Your task to perform on an android device: Open Youtube and go to "Your channel" Image 0: 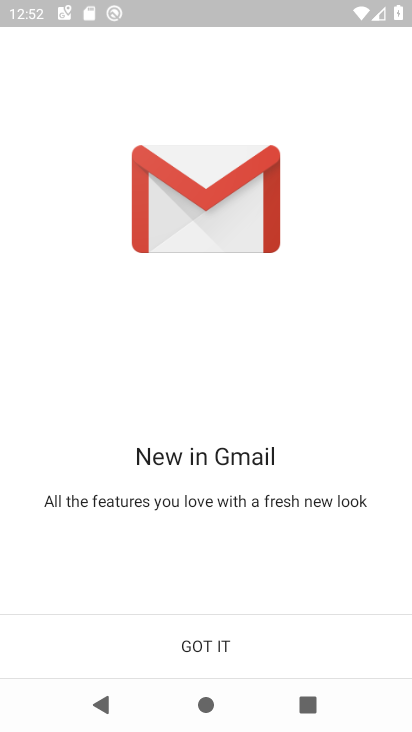
Step 0: click (202, 648)
Your task to perform on an android device: Open Youtube and go to "Your channel" Image 1: 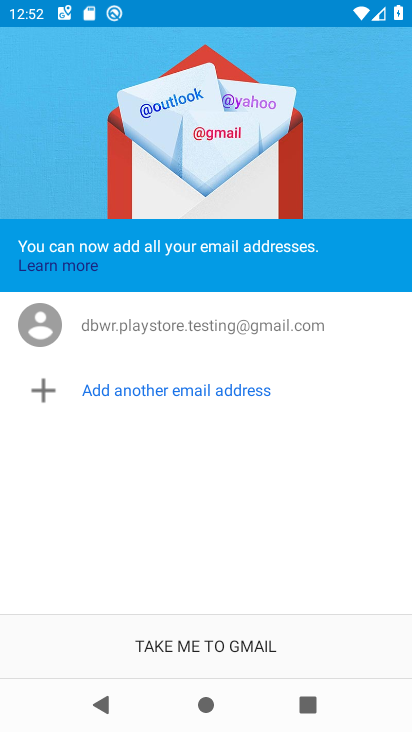
Step 1: click (205, 650)
Your task to perform on an android device: Open Youtube and go to "Your channel" Image 2: 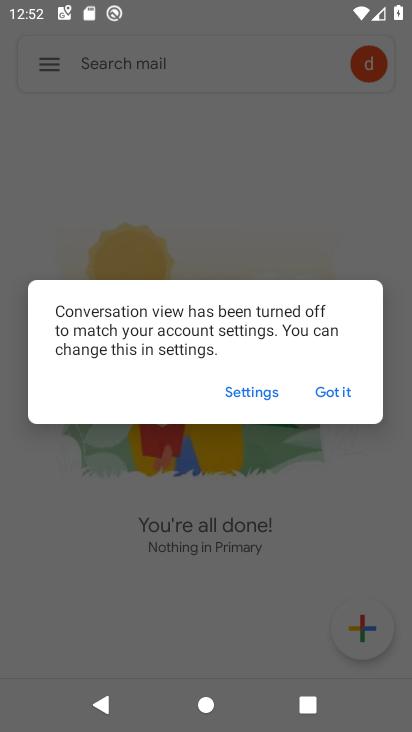
Step 2: press back button
Your task to perform on an android device: Open Youtube and go to "Your channel" Image 3: 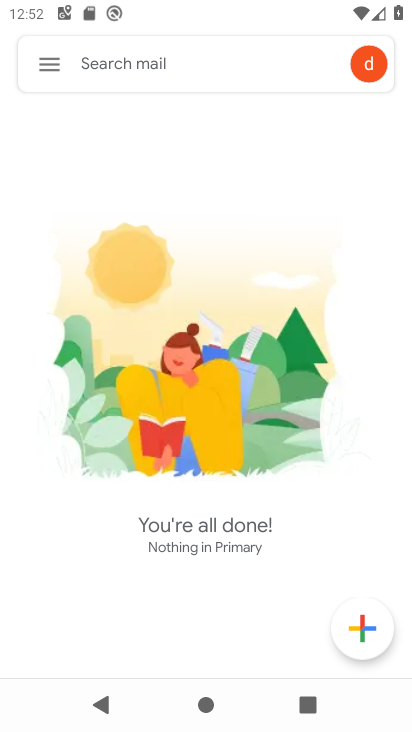
Step 3: press home button
Your task to perform on an android device: Open Youtube and go to "Your channel" Image 4: 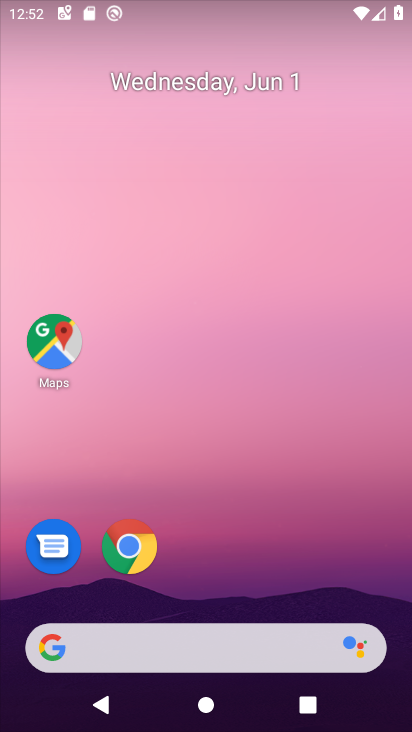
Step 4: drag from (225, 421) to (269, 6)
Your task to perform on an android device: Open Youtube and go to "Your channel" Image 5: 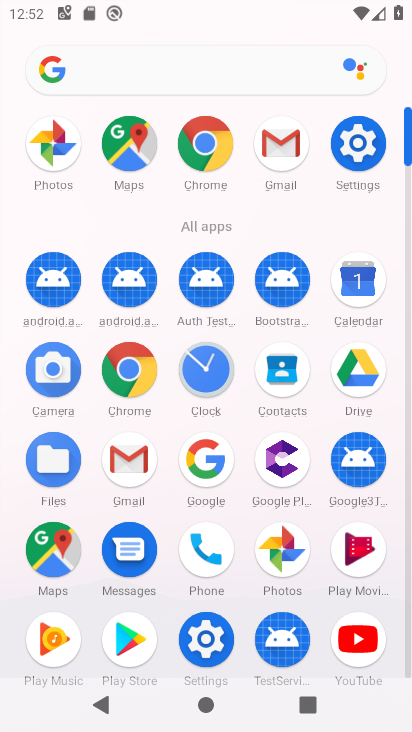
Step 5: click (356, 641)
Your task to perform on an android device: Open Youtube and go to "Your channel" Image 6: 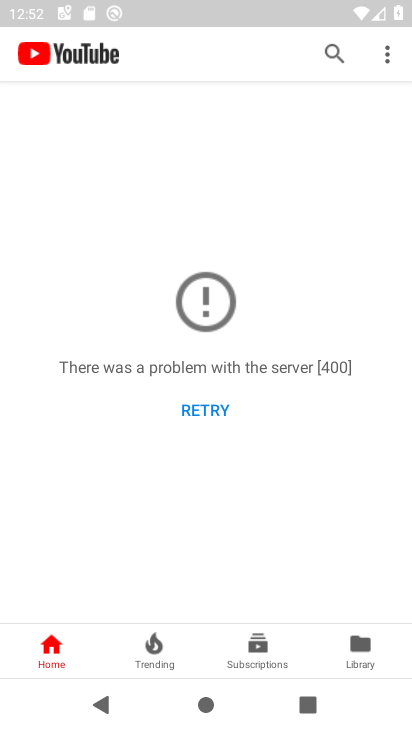
Step 6: task complete